Your task to perform on an android device: check google app version Image 0: 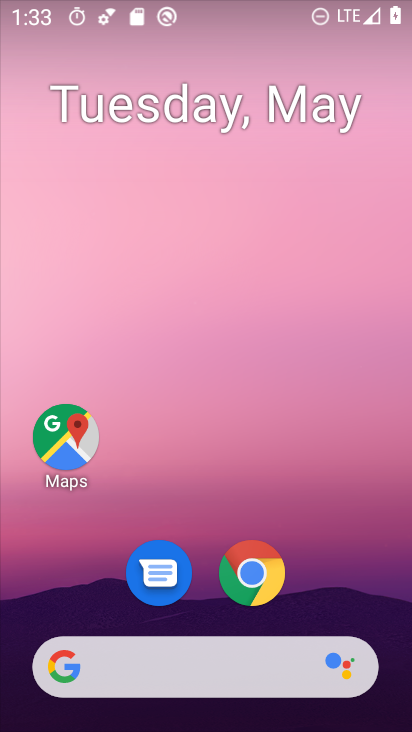
Step 0: drag from (357, 588) to (324, 116)
Your task to perform on an android device: check google app version Image 1: 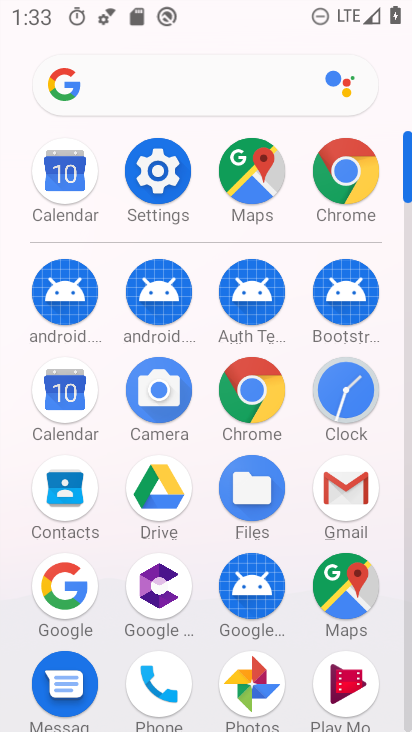
Step 1: click (61, 567)
Your task to perform on an android device: check google app version Image 2: 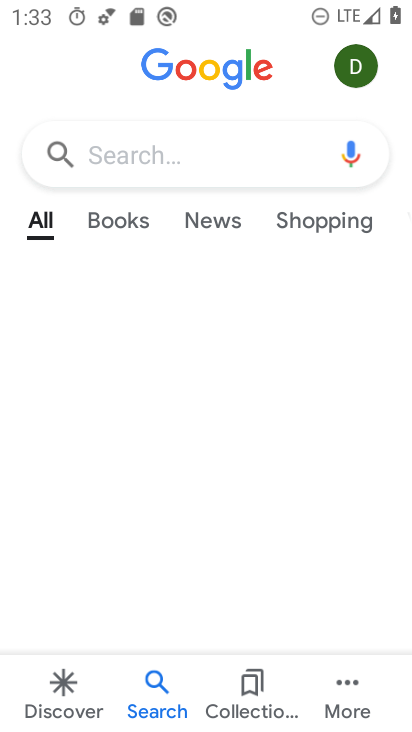
Step 2: click (371, 692)
Your task to perform on an android device: check google app version Image 3: 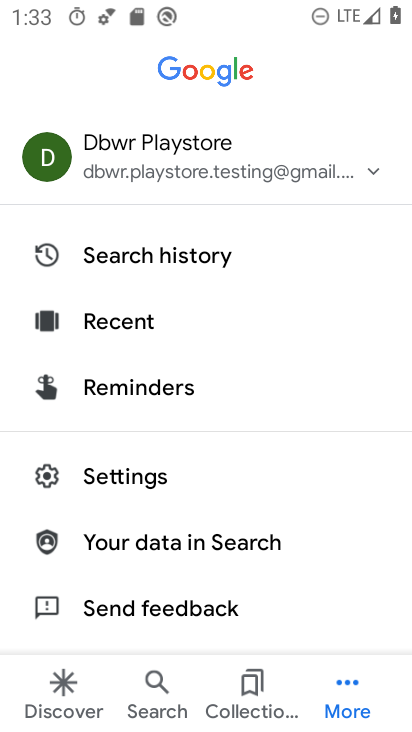
Step 3: click (110, 466)
Your task to perform on an android device: check google app version Image 4: 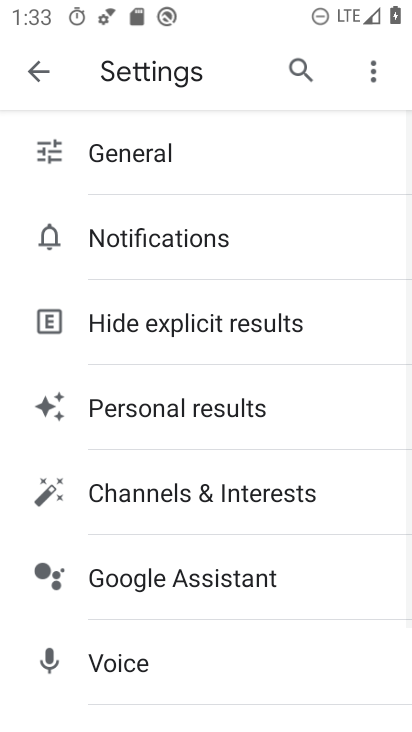
Step 4: drag from (209, 656) to (243, 310)
Your task to perform on an android device: check google app version Image 5: 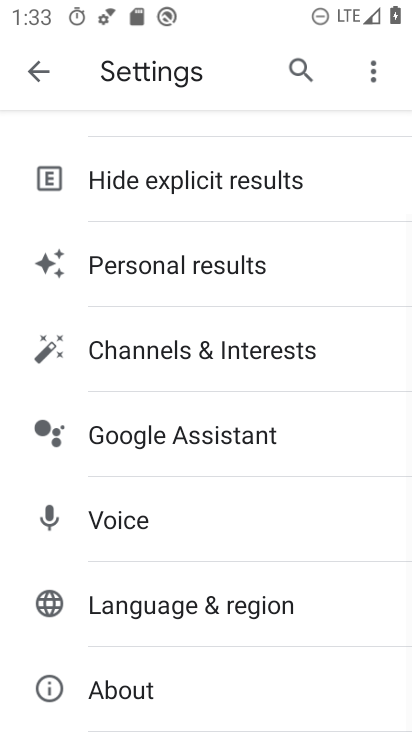
Step 5: drag from (214, 632) to (215, 270)
Your task to perform on an android device: check google app version Image 6: 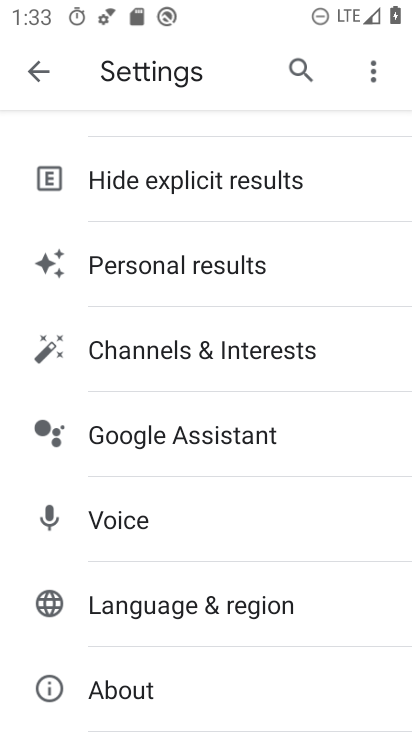
Step 6: drag from (198, 697) to (214, 304)
Your task to perform on an android device: check google app version Image 7: 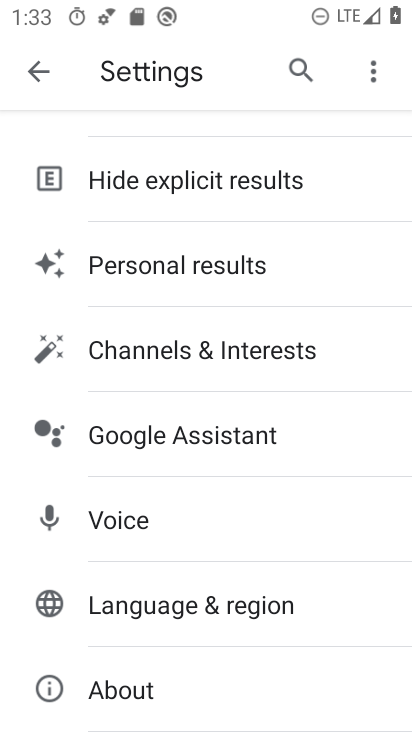
Step 7: click (188, 658)
Your task to perform on an android device: check google app version Image 8: 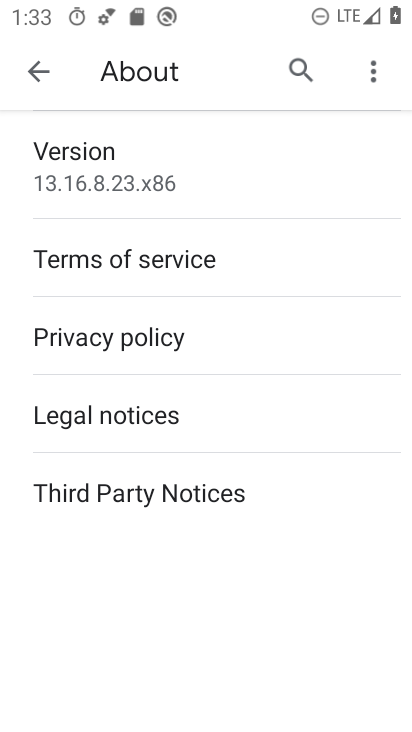
Step 8: click (94, 162)
Your task to perform on an android device: check google app version Image 9: 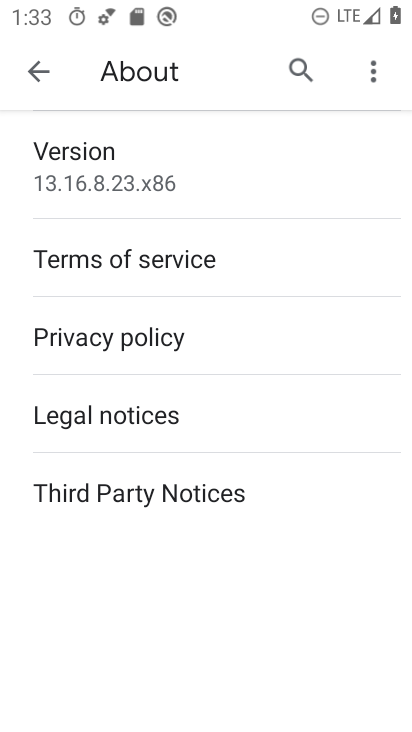
Step 9: click (94, 163)
Your task to perform on an android device: check google app version Image 10: 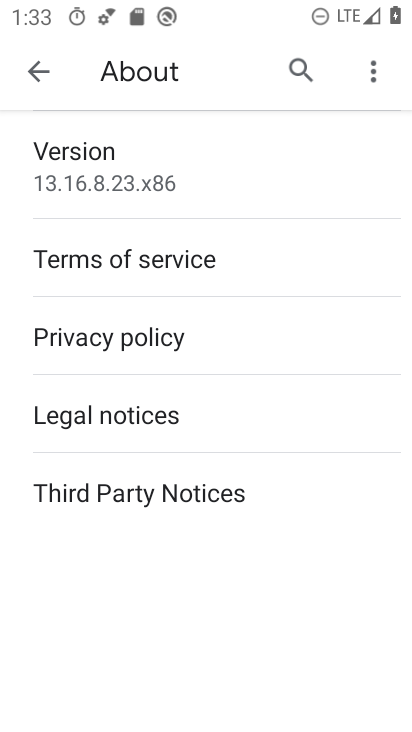
Step 10: task complete